Your task to perform on an android device: toggle pop-ups in chrome Image 0: 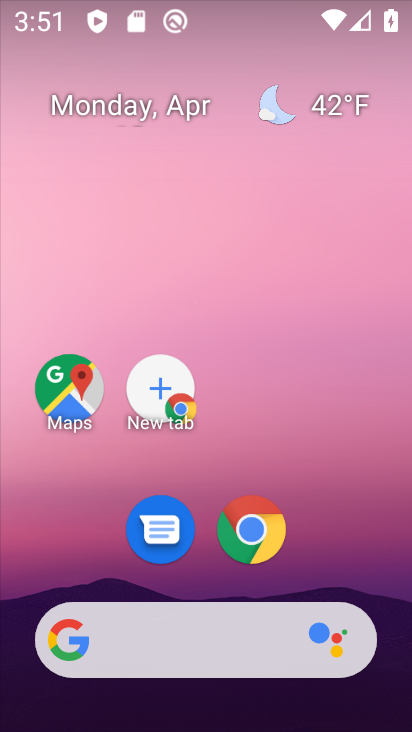
Step 0: click (66, 400)
Your task to perform on an android device: toggle pop-ups in chrome Image 1: 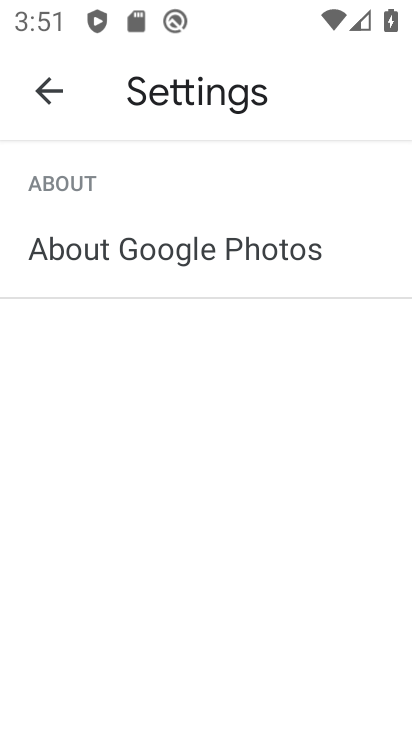
Step 1: click (46, 89)
Your task to perform on an android device: toggle pop-ups in chrome Image 2: 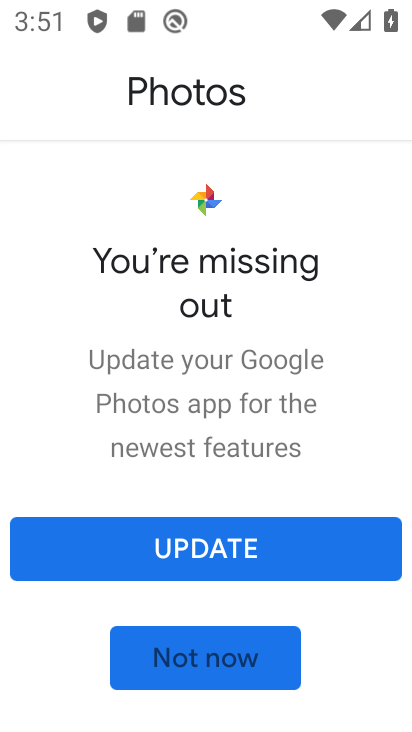
Step 2: press back button
Your task to perform on an android device: toggle pop-ups in chrome Image 3: 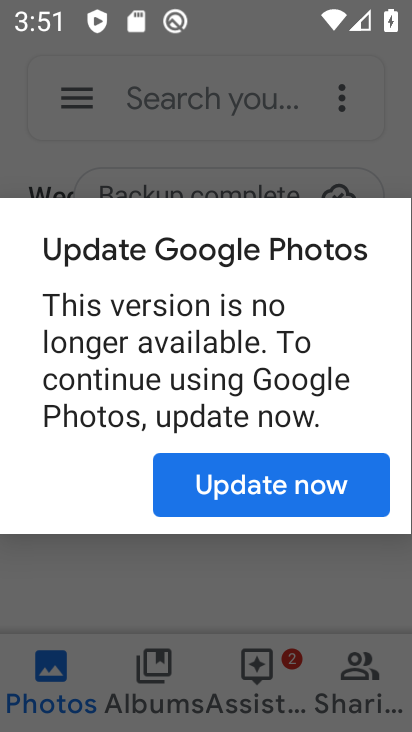
Step 3: press home button
Your task to perform on an android device: toggle pop-ups in chrome Image 4: 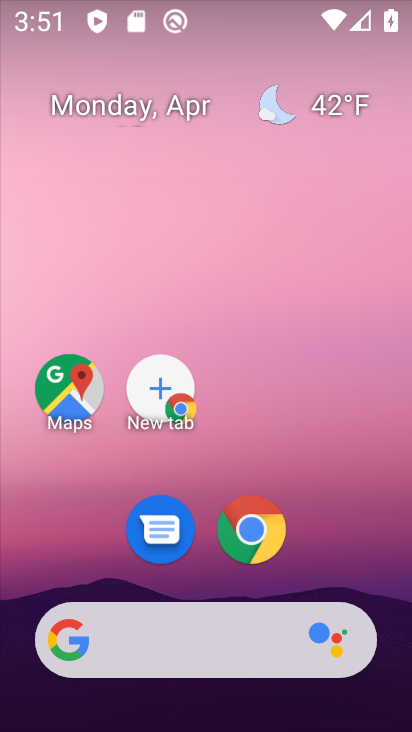
Step 4: click (245, 519)
Your task to perform on an android device: toggle pop-ups in chrome Image 5: 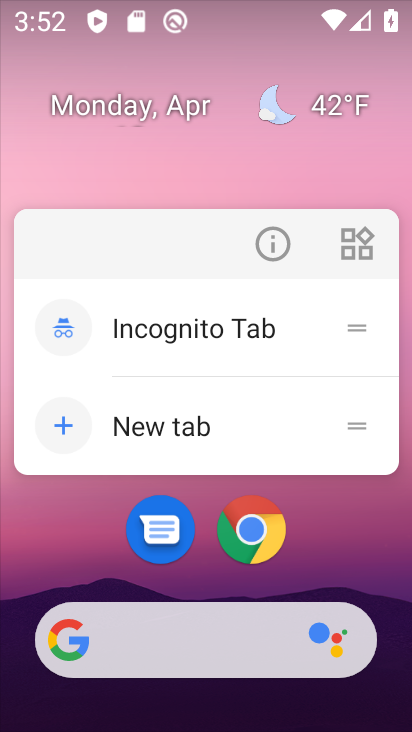
Step 5: click (238, 531)
Your task to perform on an android device: toggle pop-ups in chrome Image 6: 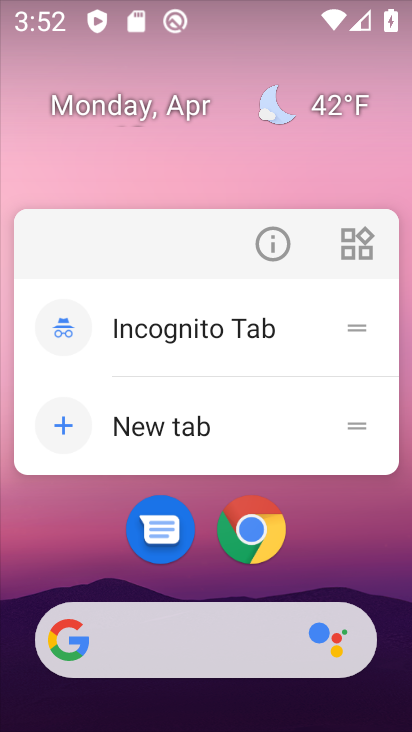
Step 6: click (261, 528)
Your task to perform on an android device: toggle pop-ups in chrome Image 7: 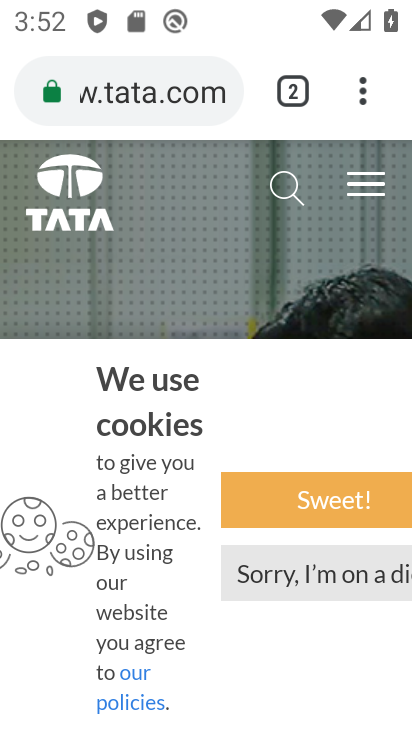
Step 7: click (363, 91)
Your task to perform on an android device: toggle pop-ups in chrome Image 8: 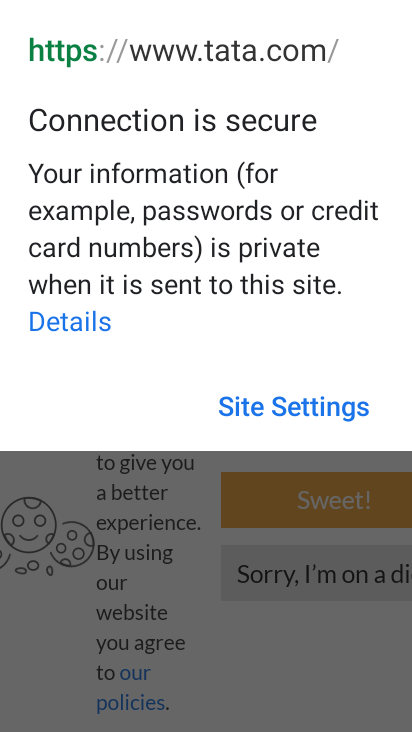
Step 8: click (171, 496)
Your task to perform on an android device: toggle pop-ups in chrome Image 9: 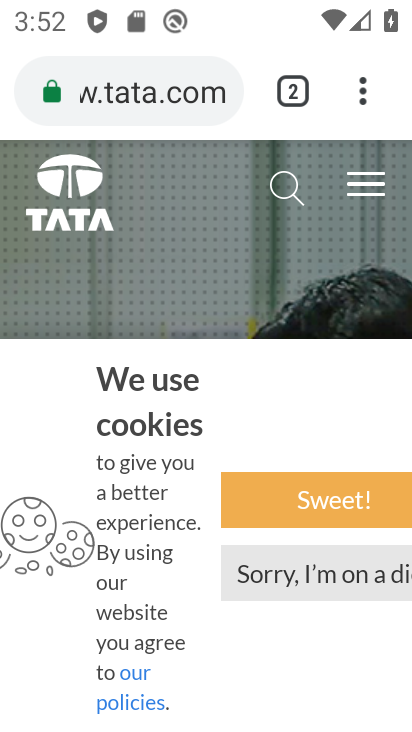
Step 9: drag from (365, 91) to (176, 548)
Your task to perform on an android device: toggle pop-ups in chrome Image 10: 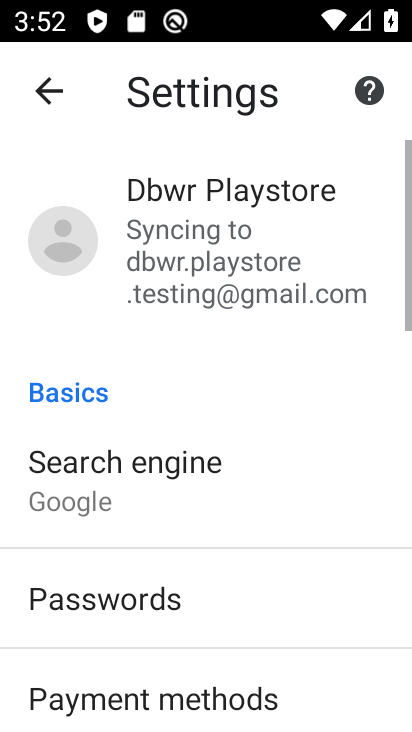
Step 10: drag from (164, 607) to (296, 95)
Your task to perform on an android device: toggle pop-ups in chrome Image 11: 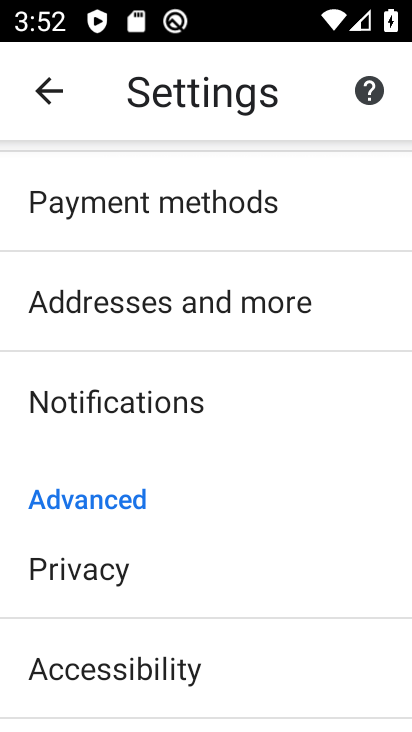
Step 11: drag from (194, 631) to (271, 160)
Your task to perform on an android device: toggle pop-ups in chrome Image 12: 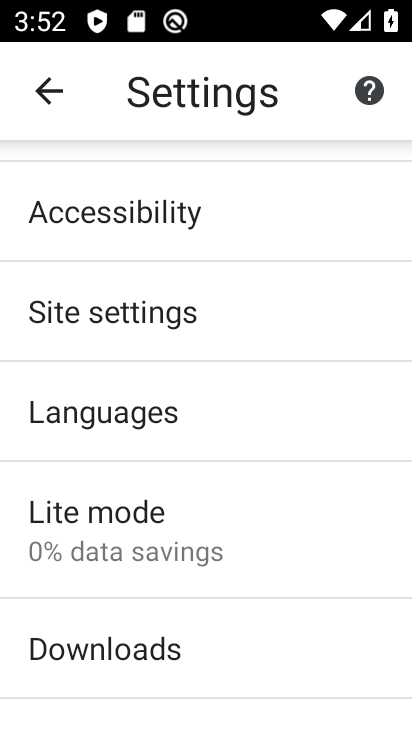
Step 12: click (105, 312)
Your task to perform on an android device: toggle pop-ups in chrome Image 13: 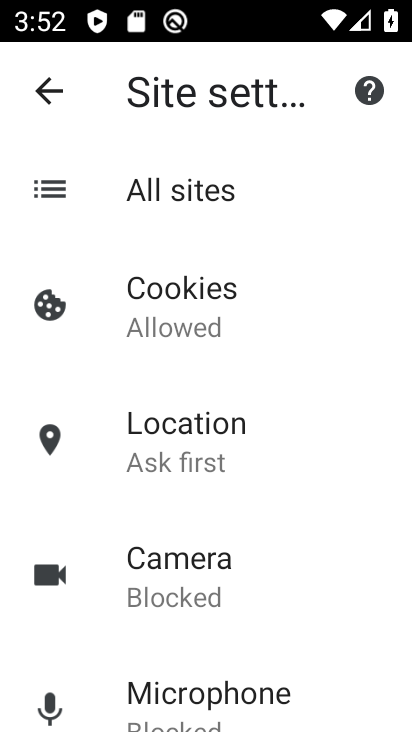
Step 13: drag from (170, 634) to (282, 39)
Your task to perform on an android device: toggle pop-ups in chrome Image 14: 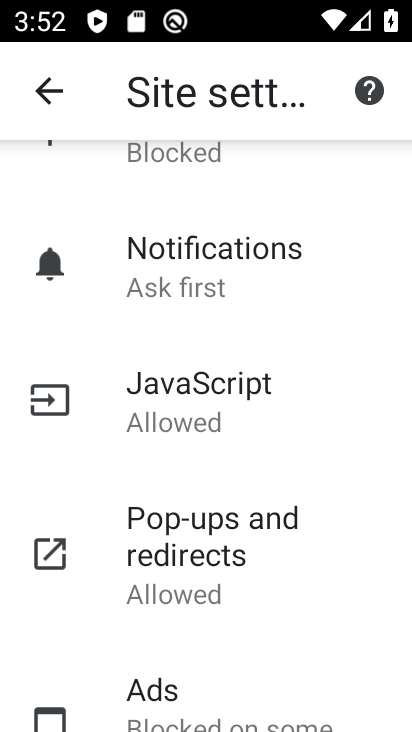
Step 14: click (227, 538)
Your task to perform on an android device: toggle pop-ups in chrome Image 15: 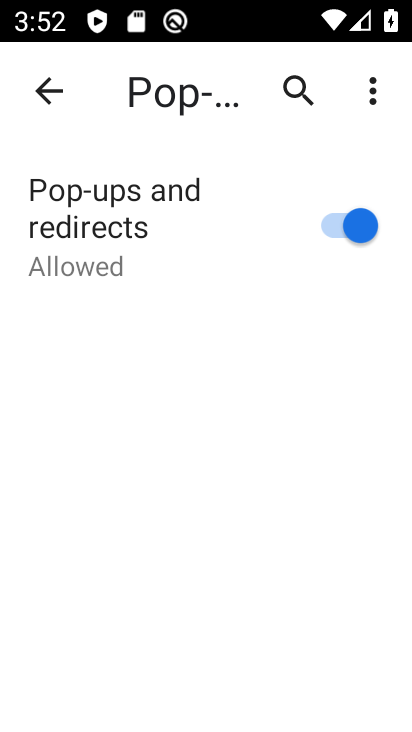
Step 15: click (345, 229)
Your task to perform on an android device: toggle pop-ups in chrome Image 16: 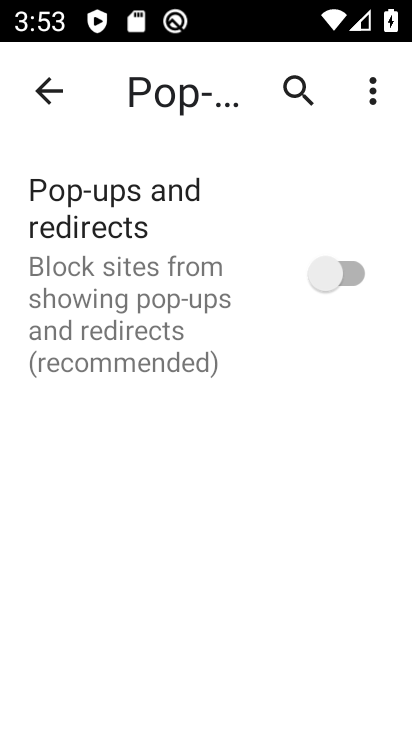
Step 16: task complete